Your task to perform on an android device: change the clock display to show seconds Image 0: 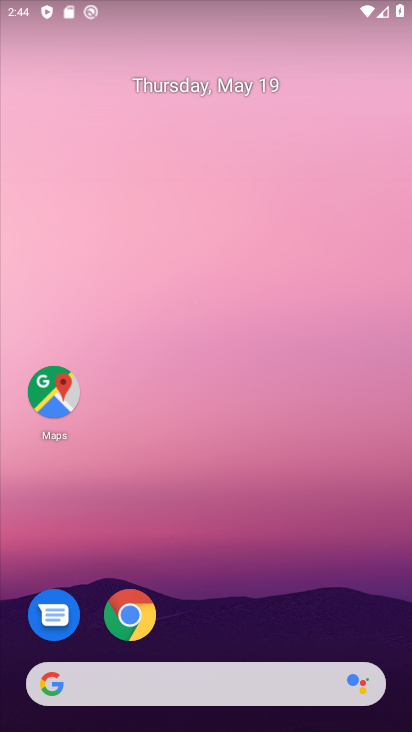
Step 0: press home button
Your task to perform on an android device: change the clock display to show seconds Image 1: 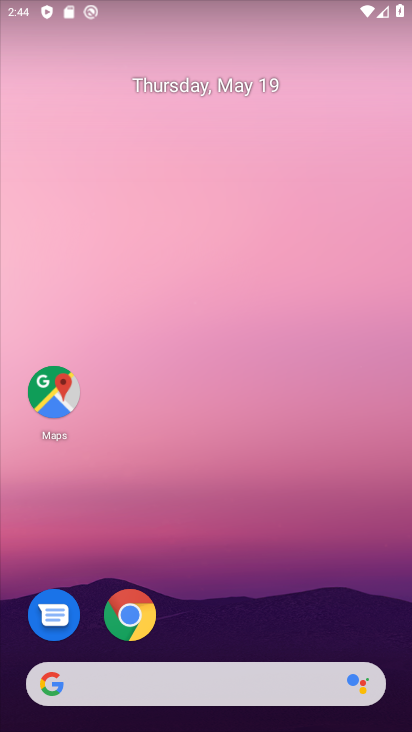
Step 1: drag from (352, 598) to (163, 0)
Your task to perform on an android device: change the clock display to show seconds Image 2: 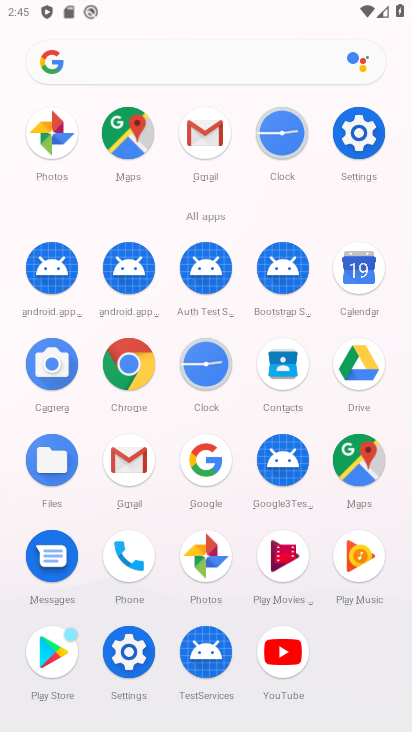
Step 2: click (199, 360)
Your task to perform on an android device: change the clock display to show seconds Image 3: 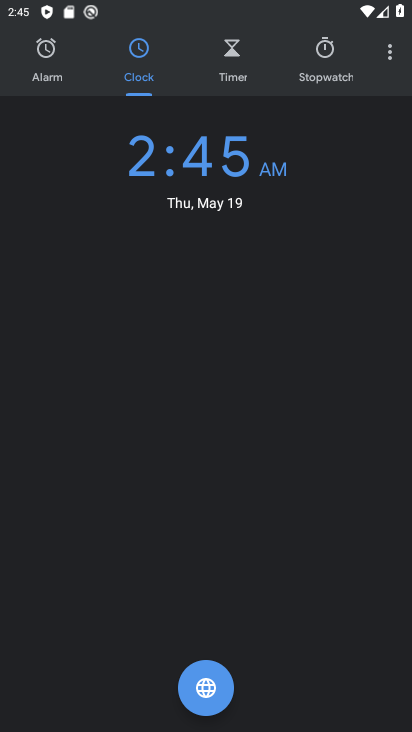
Step 3: click (392, 48)
Your task to perform on an android device: change the clock display to show seconds Image 4: 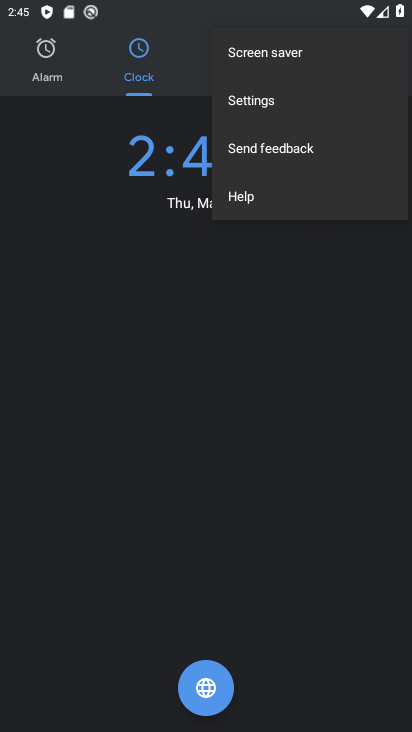
Step 4: click (275, 93)
Your task to perform on an android device: change the clock display to show seconds Image 5: 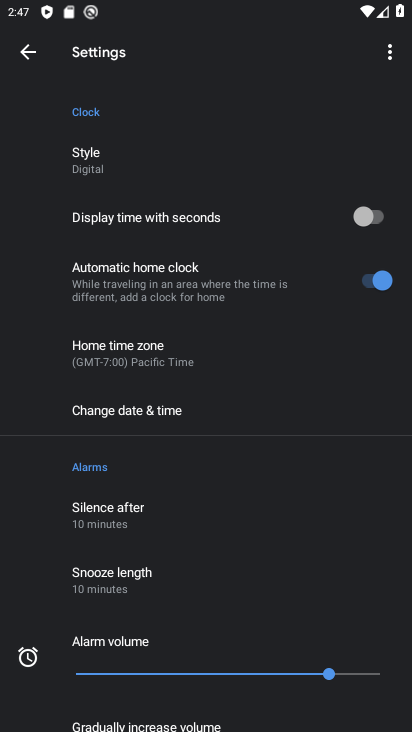
Step 5: drag from (174, 188) to (184, 526)
Your task to perform on an android device: change the clock display to show seconds Image 6: 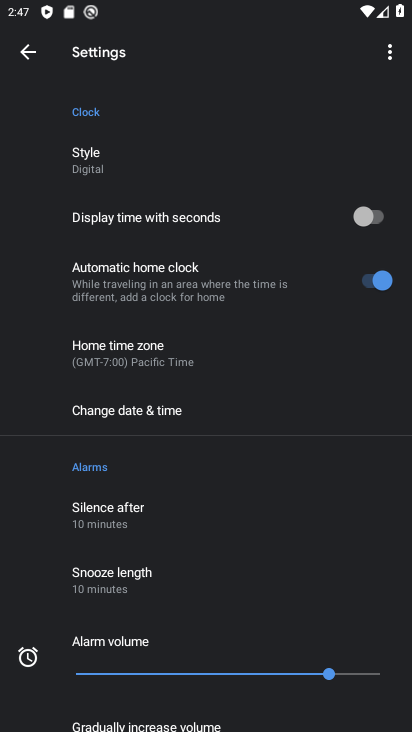
Step 6: click (246, 222)
Your task to perform on an android device: change the clock display to show seconds Image 7: 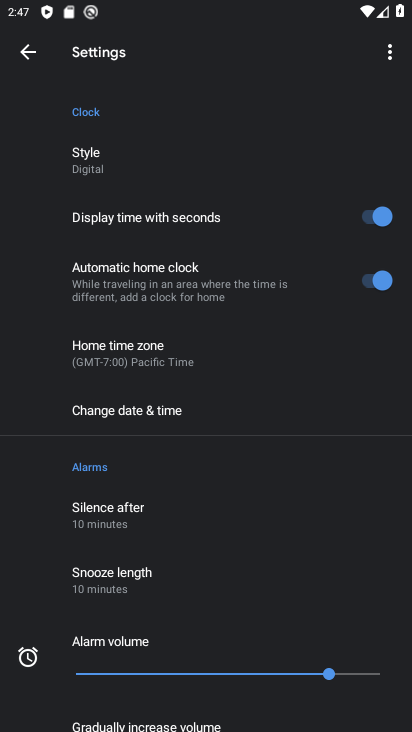
Step 7: task complete